Your task to perform on an android device: Do I have any events this weekend? Image 0: 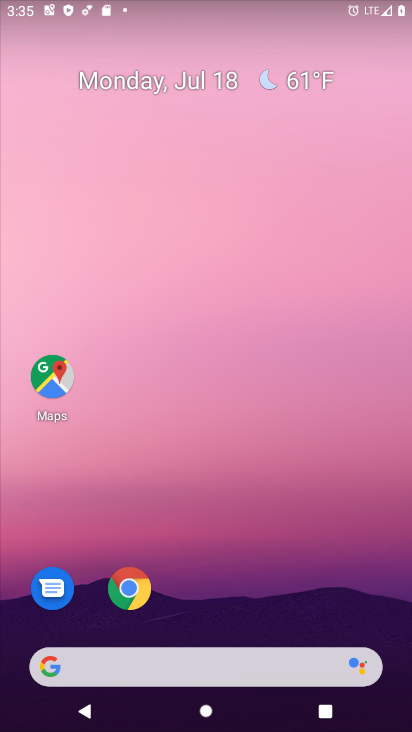
Step 0: drag from (264, 577) to (238, 10)
Your task to perform on an android device: Do I have any events this weekend? Image 1: 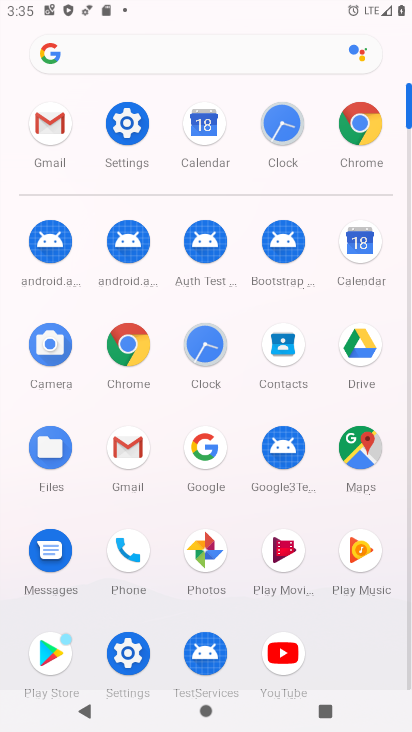
Step 1: click (369, 260)
Your task to perform on an android device: Do I have any events this weekend? Image 2: 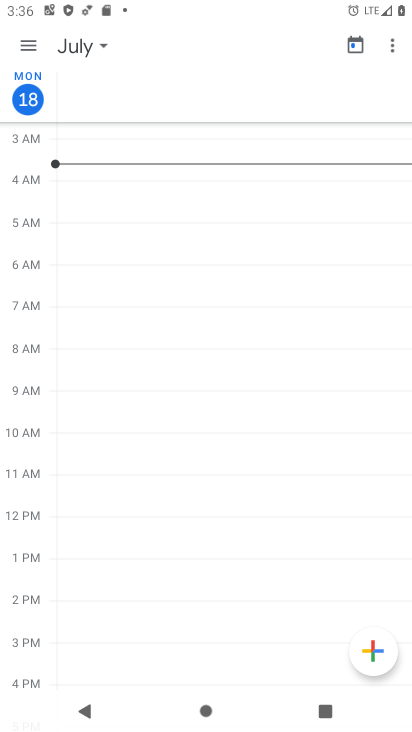
Step 2: click (31, 44)
Your task to perform on an android device: Do I have any events this weekend? Image 3: 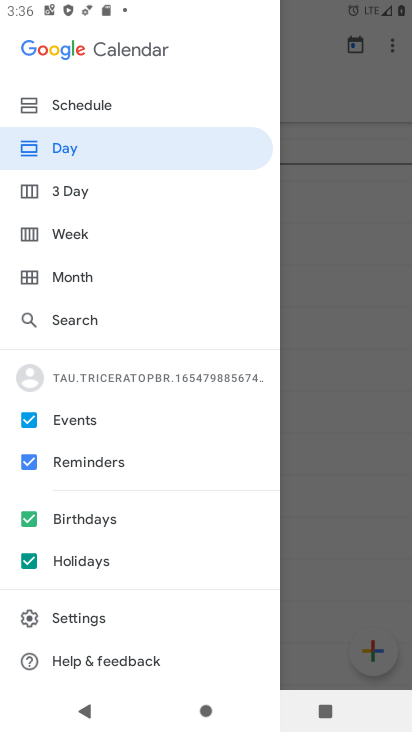
Step 3: click (65, 98)
Your task to perform on an android device: Do I have any events this weekend? Image 4: 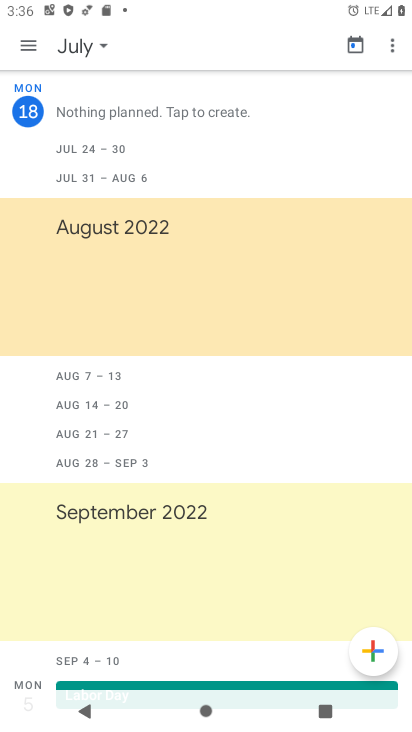
Step 4: drag from (147, 147) to (166, 594)
Your task to perform on an android device: Do I have any events this weekend? Image 5: 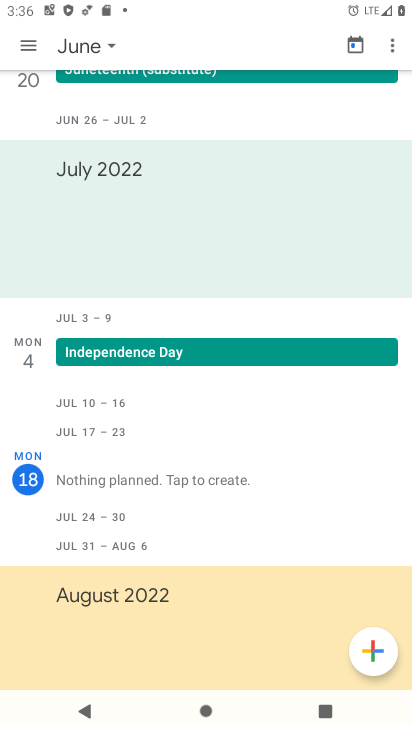
Step 5: click (20, 41)
Your task to perform on an android device: Do I have any events this weekend? Image 6: 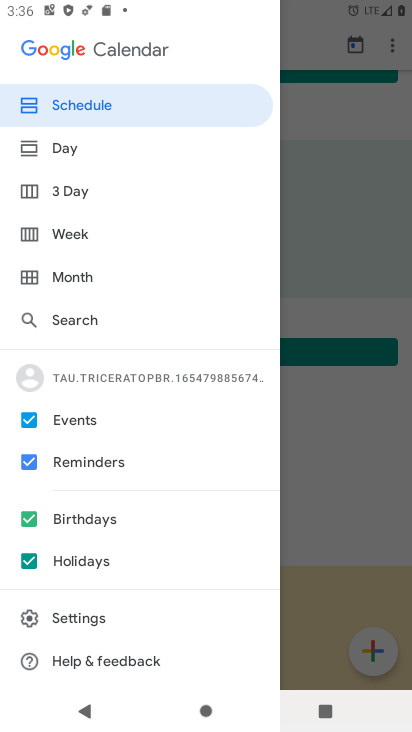
Step 6: click (102, 95)
Your task to perform on an android device: Do I have any events this weekend? Image 7: 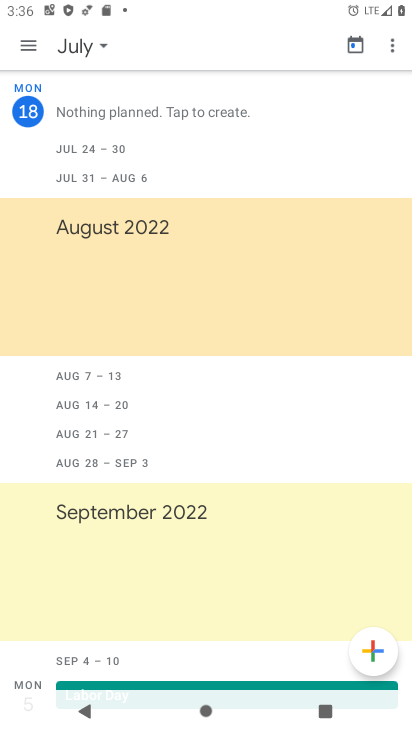
Step 7: click (88, 41)
Your task to perform on an android device: Do I have any events this weekend? Image 8: 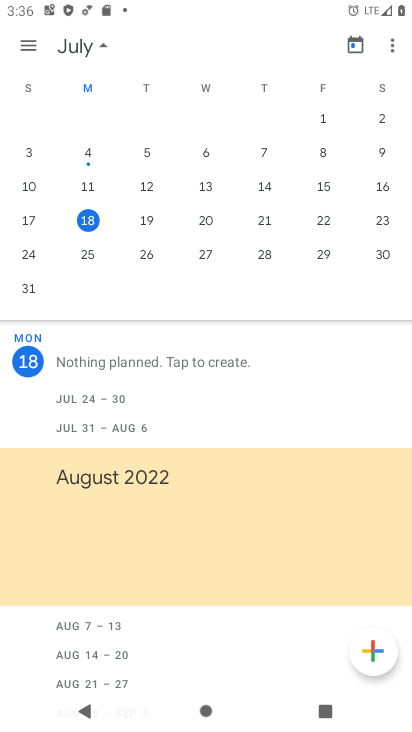
Step 8: click (378, 228)
Your task to perform on an android device: Do I have any events this weekend? Image 9: 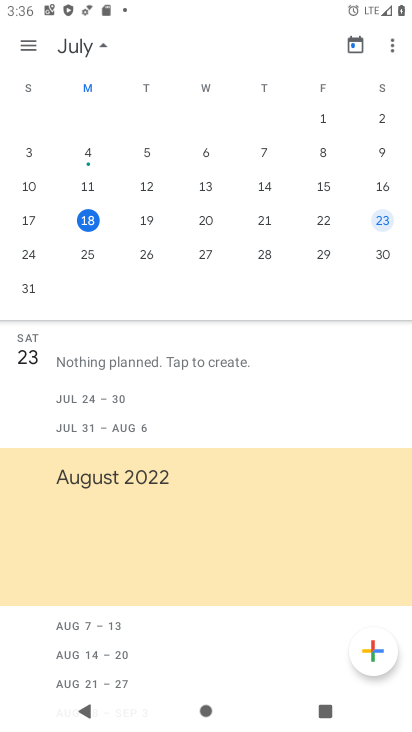
Step 9: task complete